Your task to perform on an android device: Go to accessibility settings Image 0: 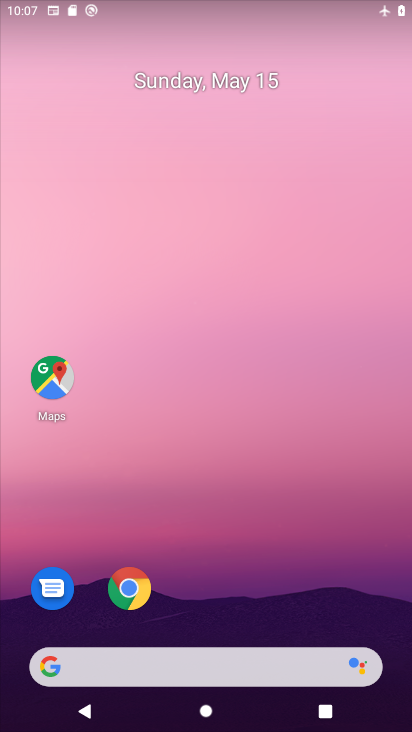
Step 0: drag from (282, 569) to (208, 206)
Your task to perform on an android device: Go to accessibility settings Image 1: 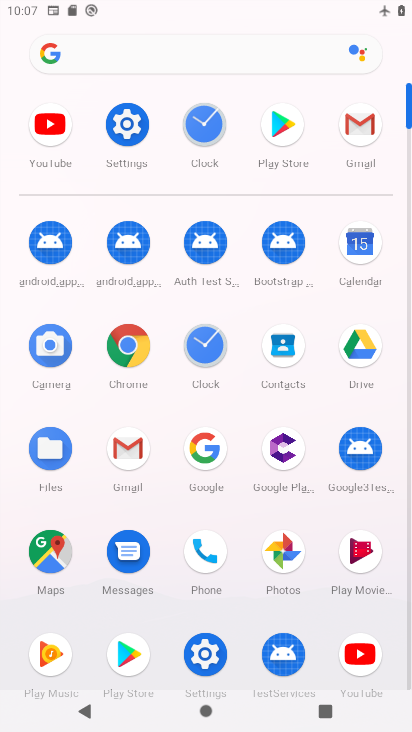
Step 1: click (210, 649)
Your task to perform on an android device: Go to accessibility settings Image 2: 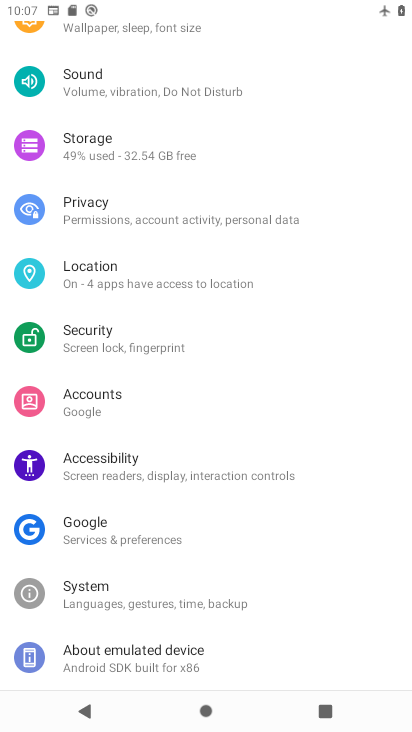
Step 2: click (173, 471)
Your task to perform on an android device: Go to accessibility settings Image 3: 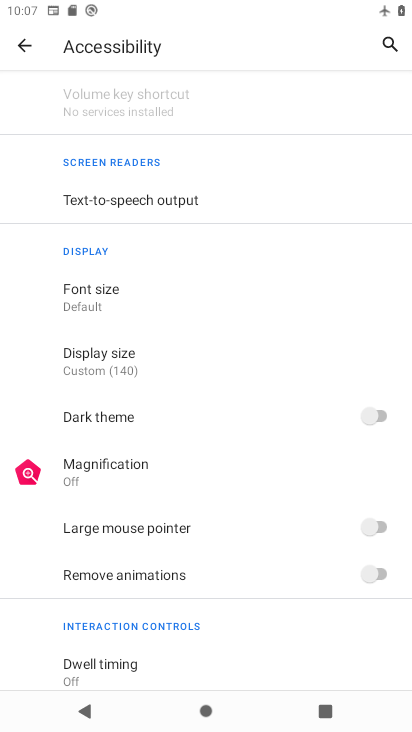
Step 3: task complete